Your task to perform on an android device: Open network settings Image 0: 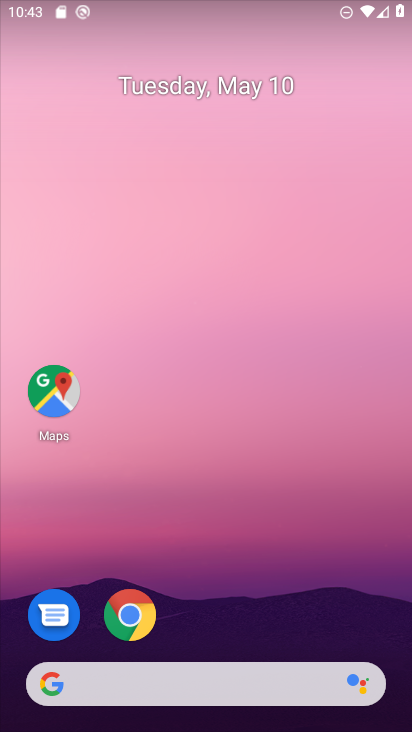
Step 0: click (244, 311)
Your task to perform on an android device: Open network settings Image 1: 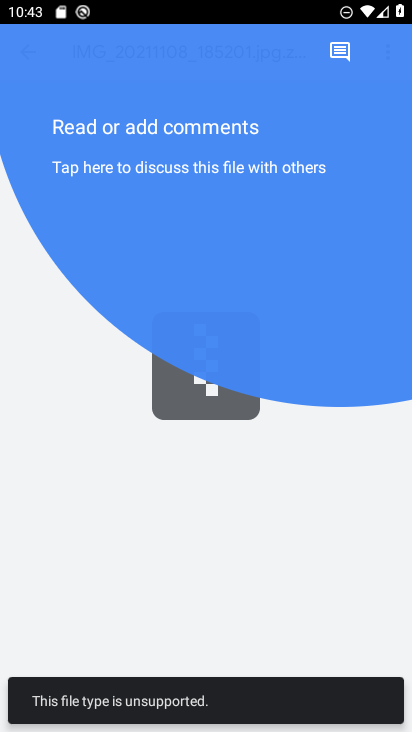
Step 1: drag from (161, 595) to (195, 372)
Your task to perform on an android device: Open network settings Image 2: 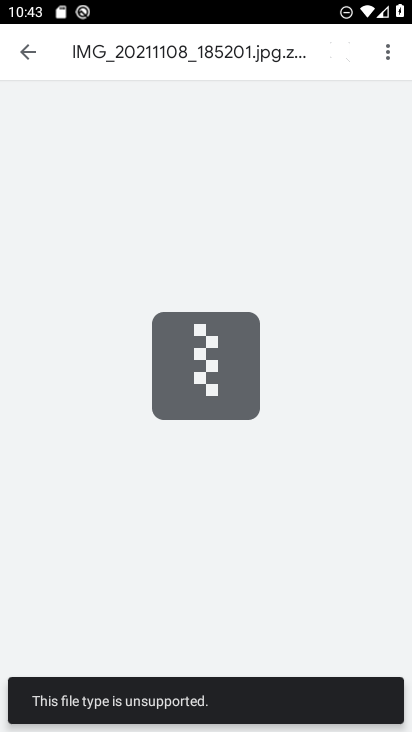
Step 2: click (160, 492)
Your task to perform on an android device: Open network settings Image 3: 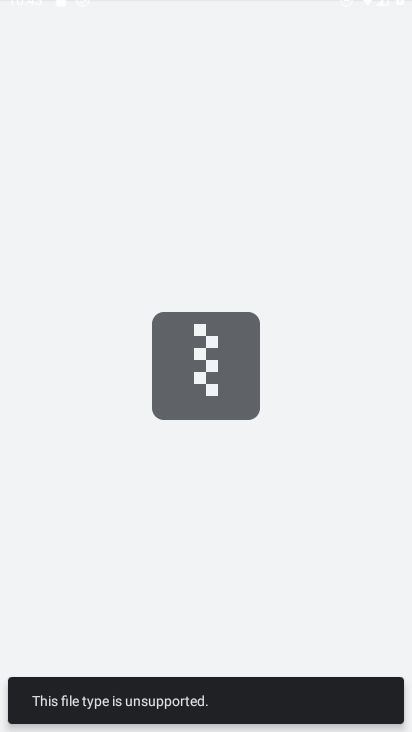
Step 3: press home button
Your task to perform on an android device: Open network settings Image 4: 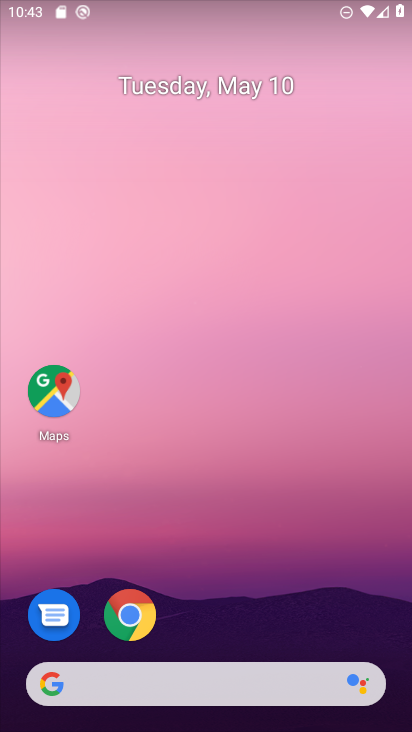
Step 4: drag from (196, 638) to (255, 233)
Your task to perform on an android device: Open network settings Image 5: 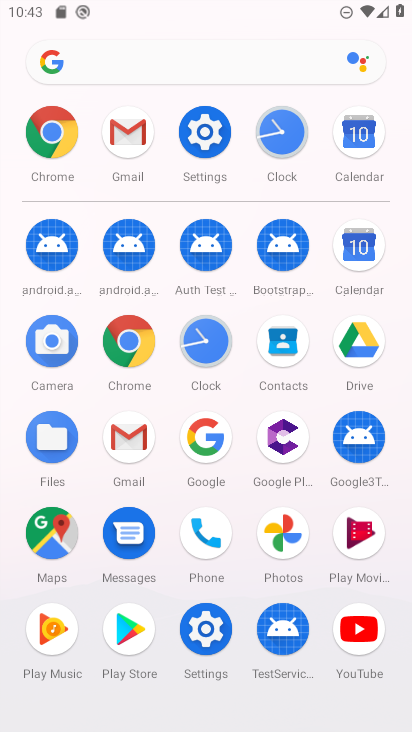
Step 5: click (211, 629)
Your task to perform on an android device: Open network settings Image 6: 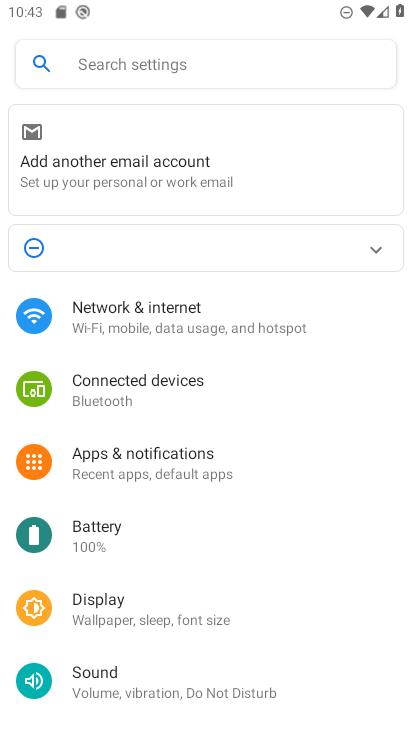
Step 6: click (151, 309)
Your task to perform on an android device: Open network settings Image 7: 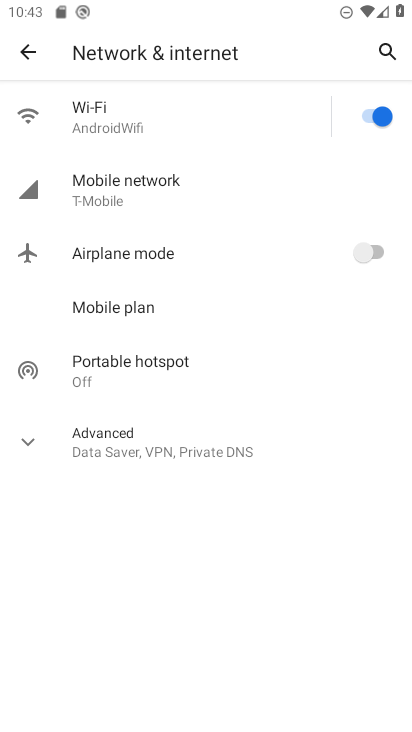
Step 7: click (189, 187)
Your task to perform on an android device: Open network settings Image 8: 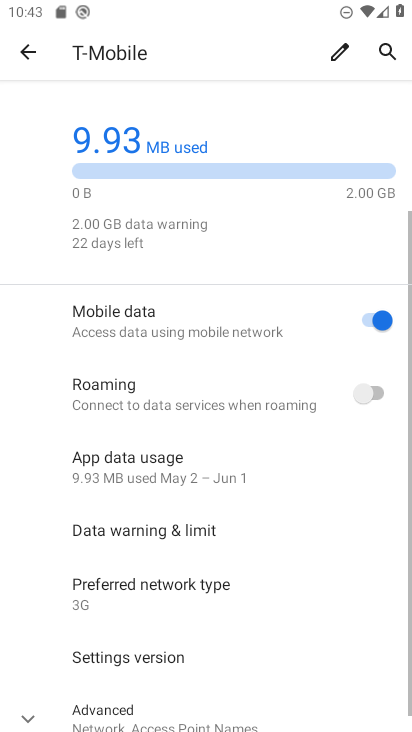
Step 8: task complete